Your task to perform on an android device: Check the news Image 0: 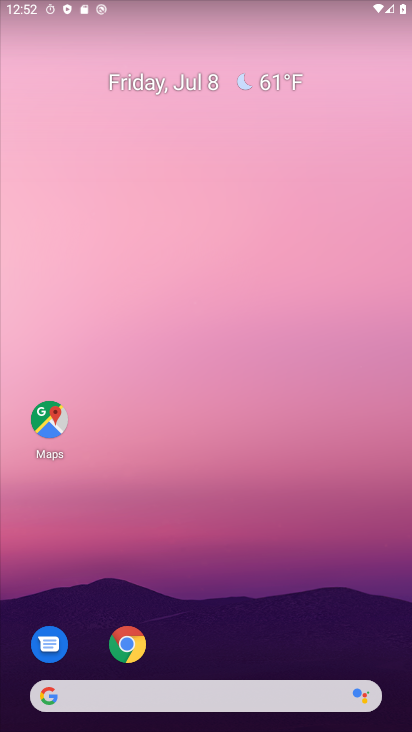
Step 0: drag from (206, 222) to (208, 84)
Your task to perform on an android device: Check the news Image 1: 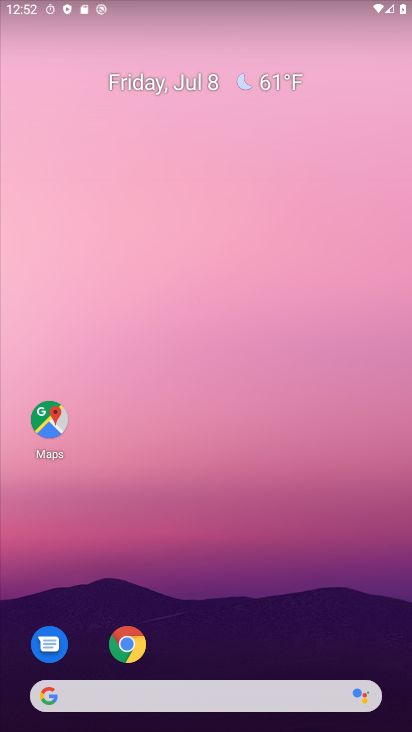
Step 1: drag from (187, 502) to (185, 341)
Your task to perform on an android device: Check the news Image 2: 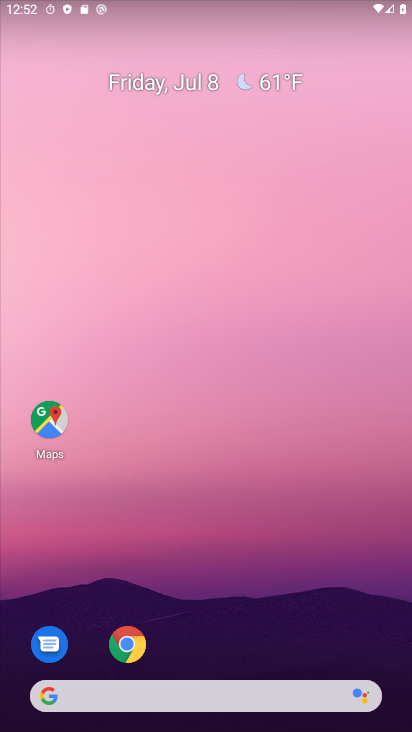
Step 2: drag from (193, 590) to (169, 116)
Your task to perform on an android device: Check the news Image 3: 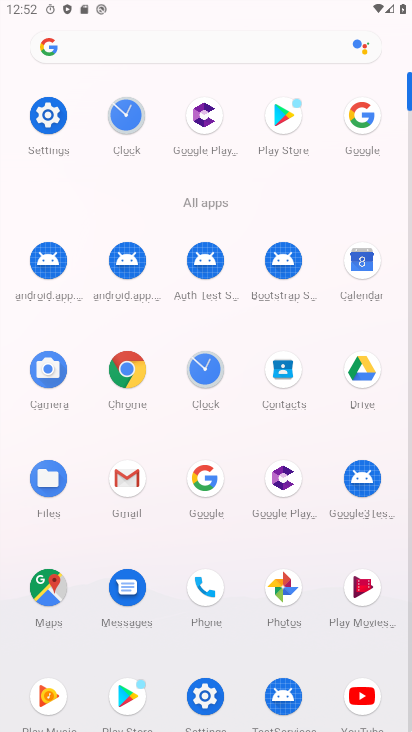
Step 3: click (358, 112)
Your task to perform on an android device: Check the news Image 4: 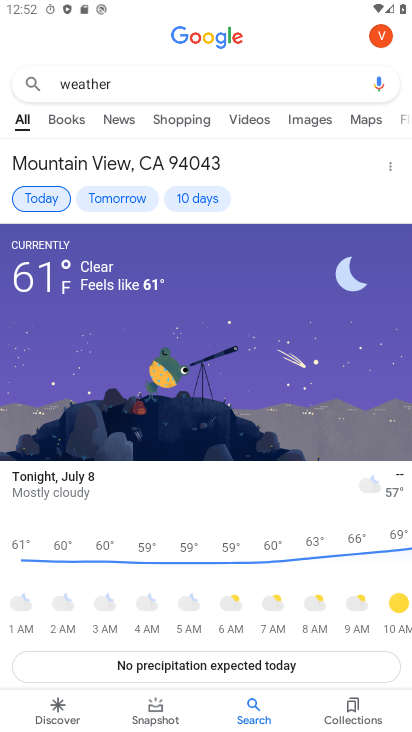
Step 4: click (237, 96)
Your task to perform on an android device: Check the news Image 5: 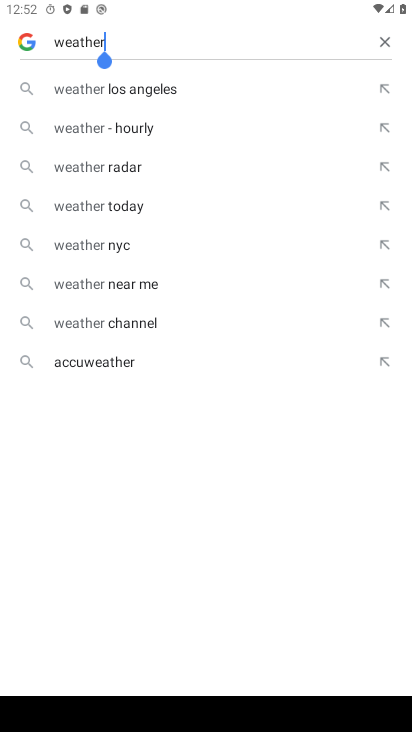
Step 5: click (385, 38)
Your task to perform on an android device: Check the news Image 6: 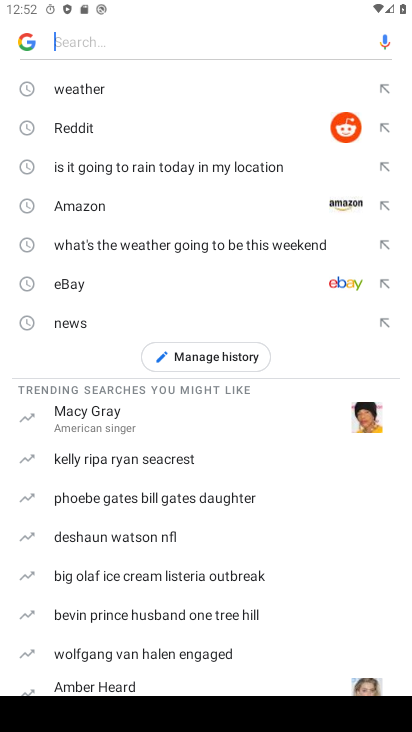
Step 6: click (68, 326)
Your task to perform on an android device: Check the news Image 7: 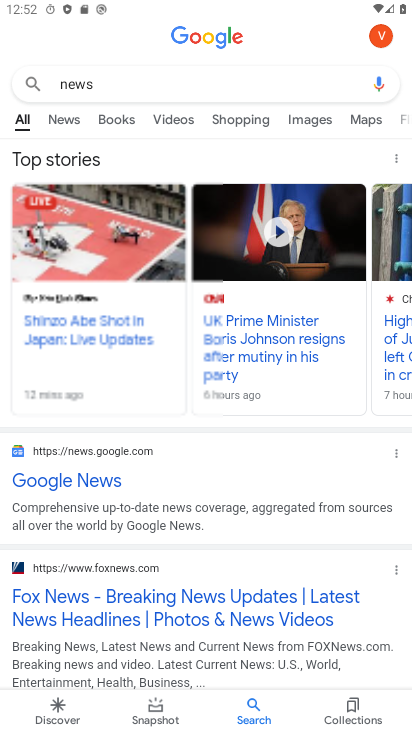
Step 7: task complete